Your task to perform on an android device: Open calendar and show me the fourth week of next month Image 0: 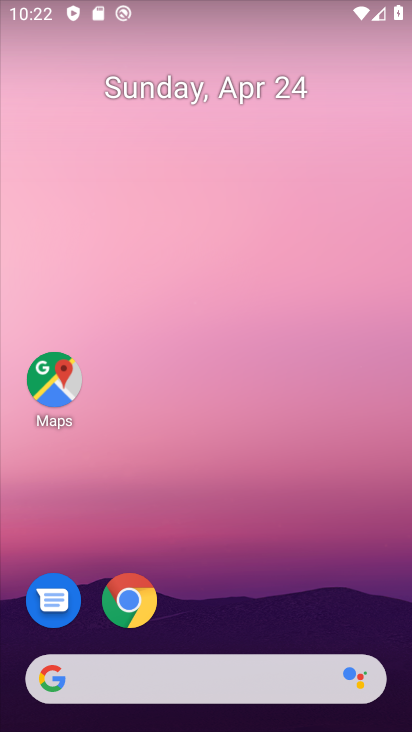
Step 0: drag from (241, 587) to (197, 179)
Your task to perform on an android device: Open calendar and show me the fourth week of next month Image 1: 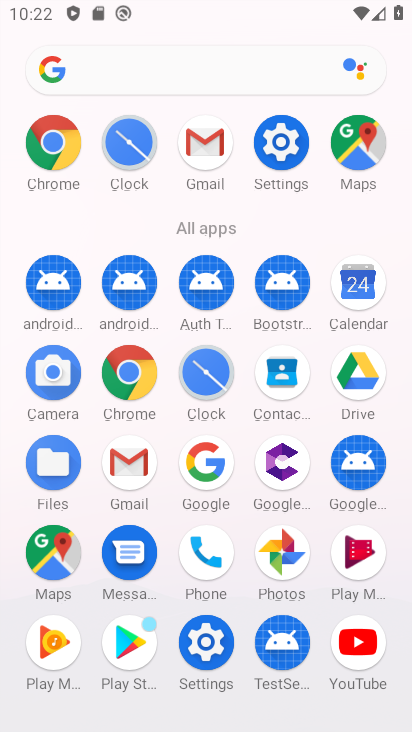
Step 1: click (351, 277)
Your task to perform on an android device: Open calendar and show me the fourth week of next month Image 2: 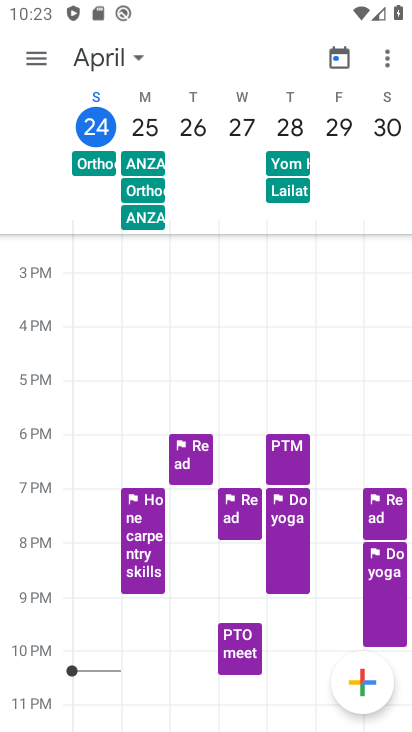
Step 2: click (140, 56)
Your task to perform on an android device: Open calendar and show me the fourth week of next month Image 3: 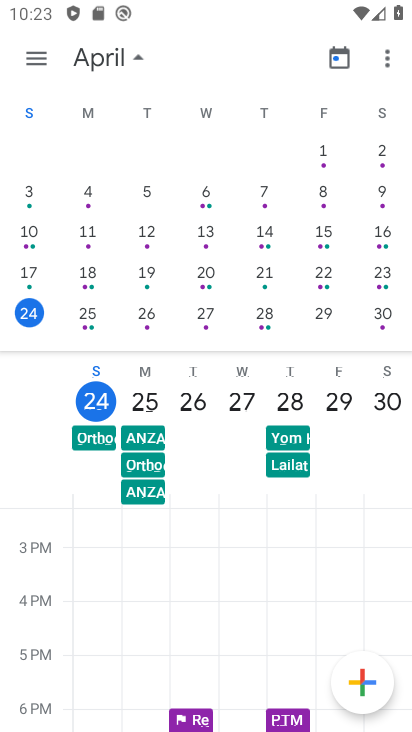
Step 3: drag from (378, 247) to (11, 243)
Your task to perform on an android device: Open calendar and show me the fourth week of next month Image 4: 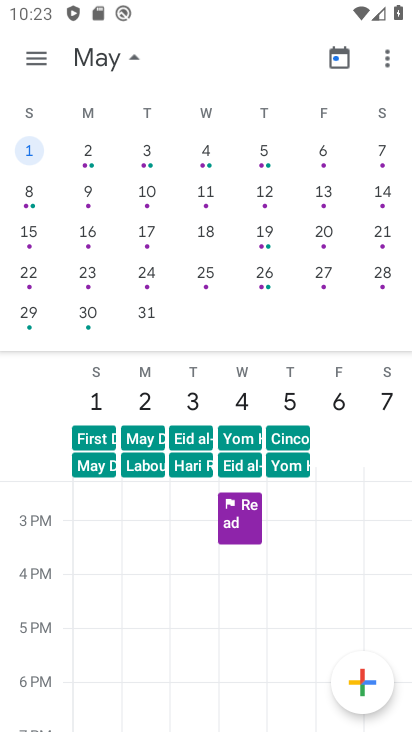
Step 4: click (144, 269)
Your task to perform on an android device: Open calendar and show me the fourth week of next month Image 5: 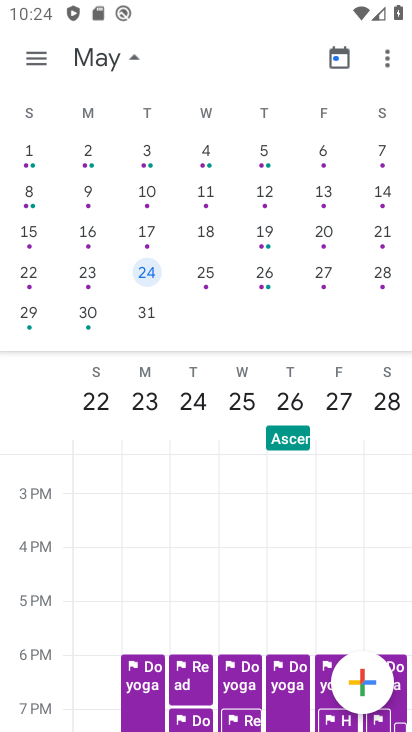
Step 5: task complete